Your task to perform on an android device: turn off airplane mode Image 0: 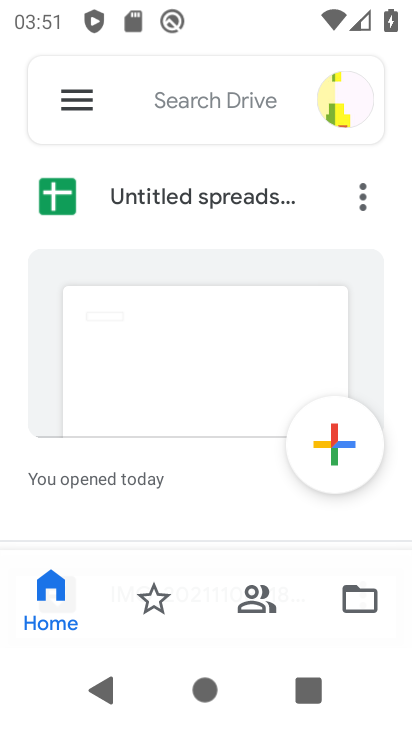
Step 0: drag from (238, 0) to (131, 618)
Your task to perform on an android device: turn off airplane mode Image 1: 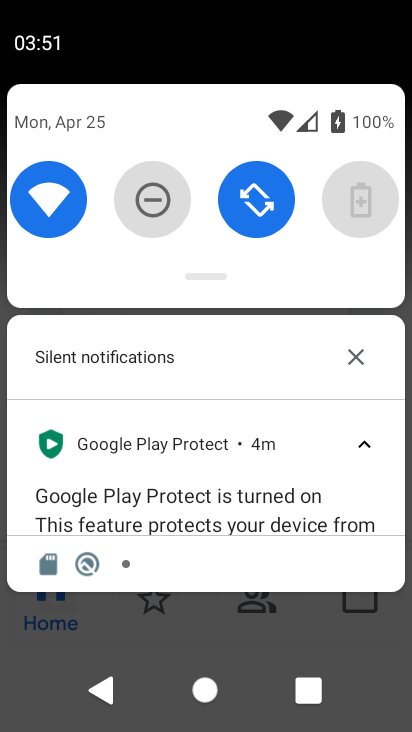
Step 1: task complete